Your task to perform on an android device: Search for Mexican restaurants on Maps Image 0: 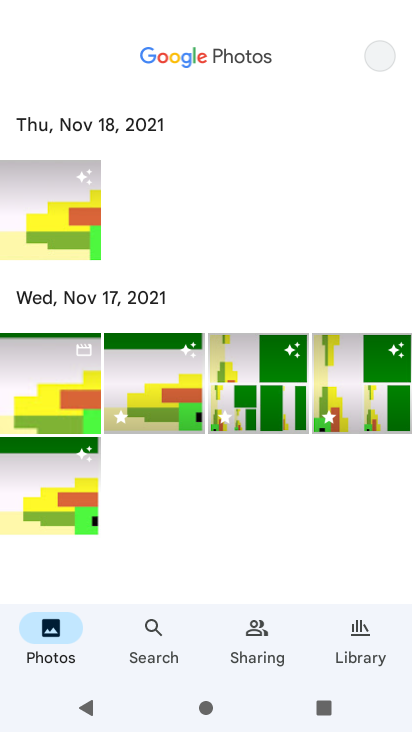
Step 0: press home button
Your task to perform on an android device: Search for Mexican restaurants on Maps Image 1: 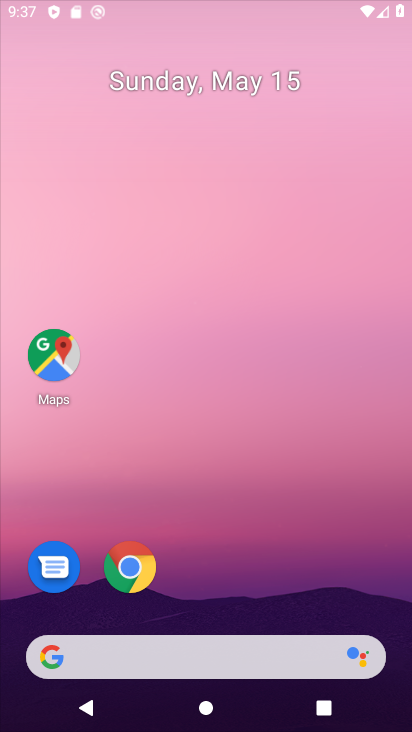
Step 1: drag from (239, 553) to (232, 108)
Your task to perform on an android device: Search for Mexican restaurants on Maps Image 2: 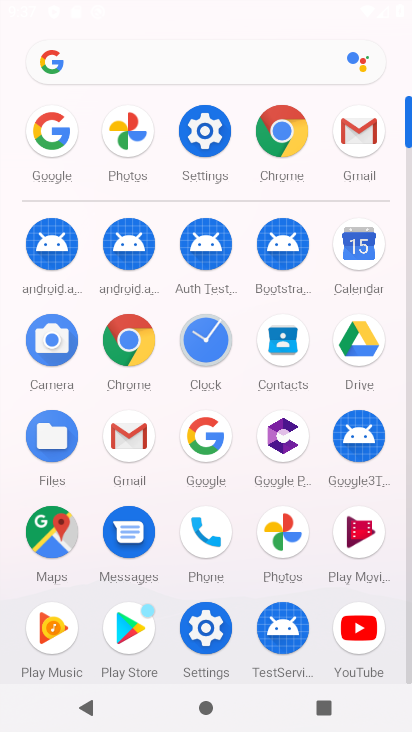
Step 2: click (50, 536)
Your task to perform on an android device: Search for Mexican restaurants on Maps Image 3: 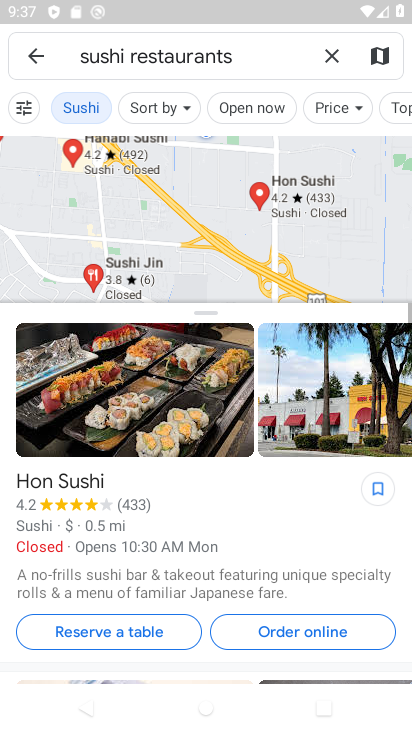
Step 3: click (329, 45)
Your task to perform on an android device: Search for Mexican restaurants on Maps Image 4: 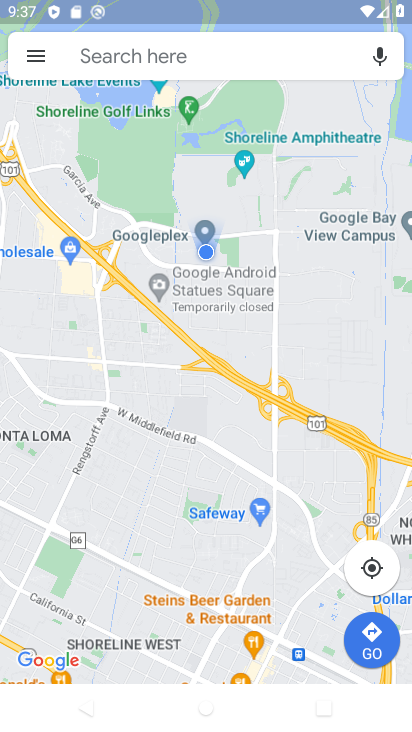
Step 4: click (226, 50)
Your task to perform on an android device: Search for Mexican restaurants on Maps Image 5: 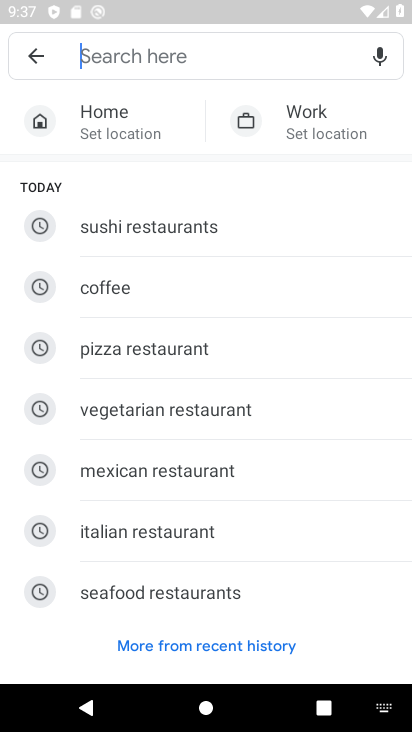
Step 5: click (177, 478)
Your task to perform on an android device: Search for Mexican restaurants on Maps Image 6: 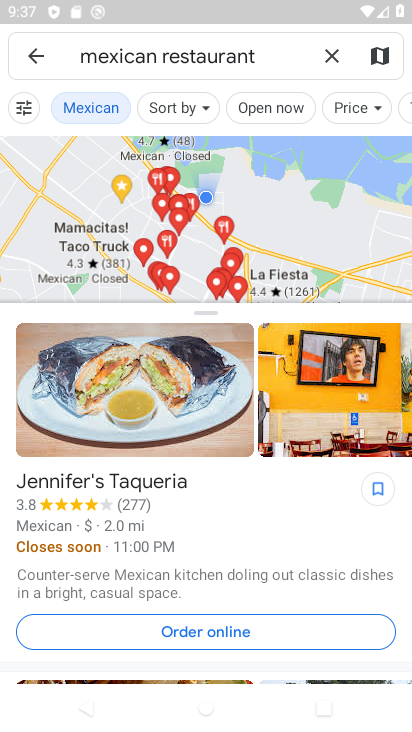
Step 6: task complete